Your task to perform on an android device: Go to internet settings Image 0: 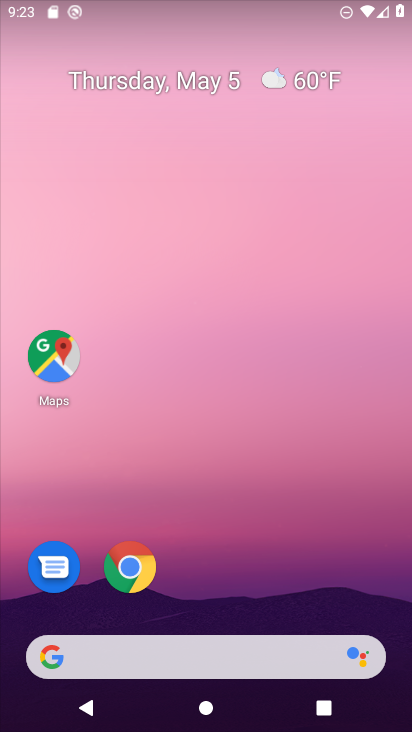
Step 0: drag from (220, 729) to (227, 290)
Your task to perform on an android device: Go to internet settings Image 1: 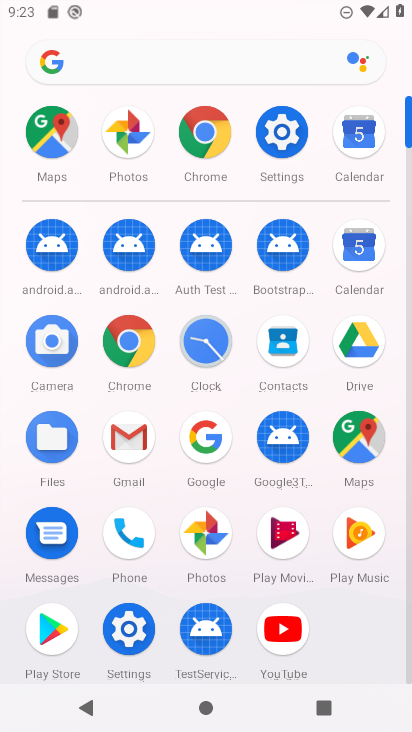
Step 1: click (281, 126)
Your task to perform on an android device: Go to internet settings Image 2: 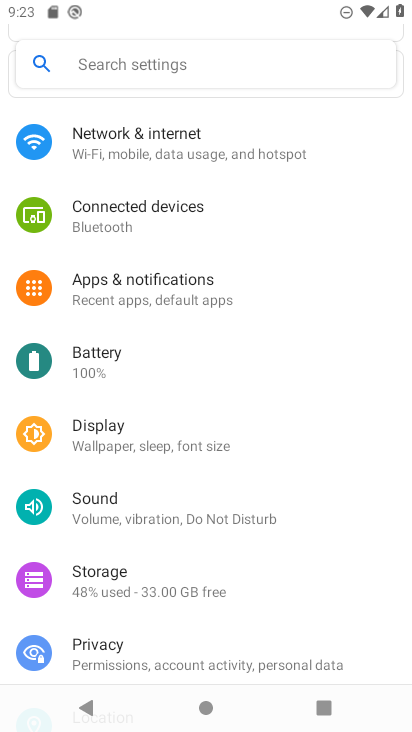
Step 2: click (139, 151)
Your task to perform on an android device: Go to internet settings Image 3: 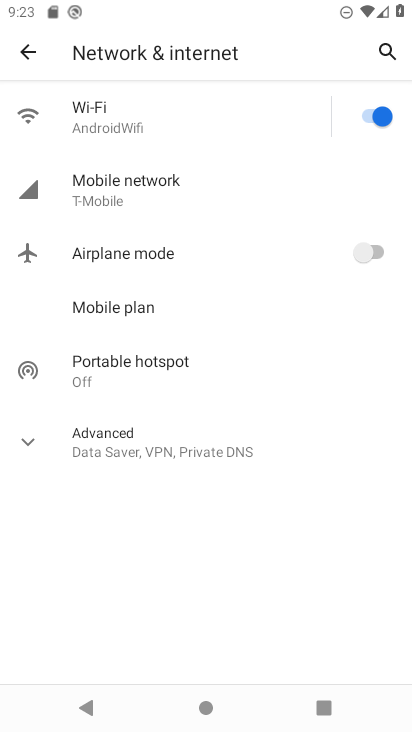
Step 3: task complete